Your task to perform on an android device: Open Wikipedia Image 0: 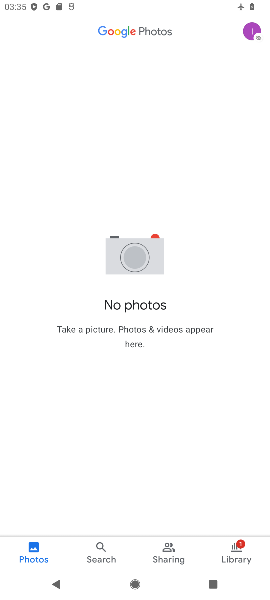
Step 0: press home button
Your task to perform on an android device: Open Wikipedia Image 1: 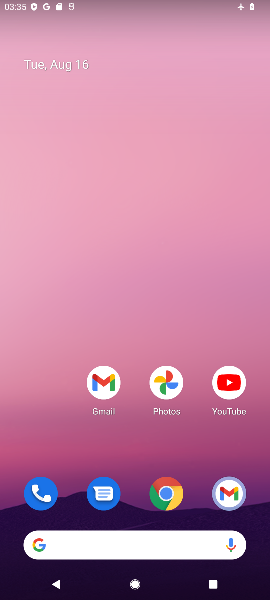
Step 1: drag from (64, 476) to (67, 120)
Your task to perform on an android device: Open Wikipedia Image 2: 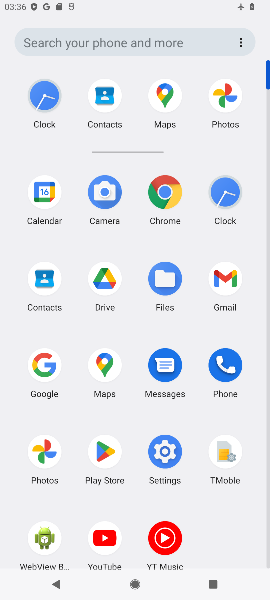
Step 2: click (163, 190)
Your task to perform on an android device: Open Wikipedia Image 3: 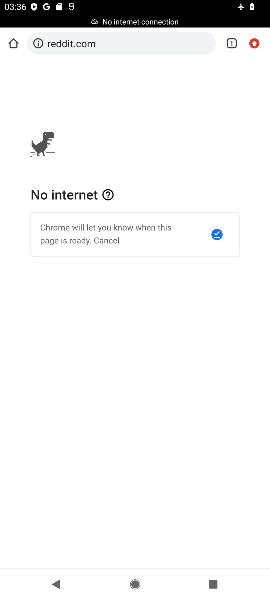
Step 3: click (114, 44)
Your task to perform on an android device: Open Wikipedia Image 4: 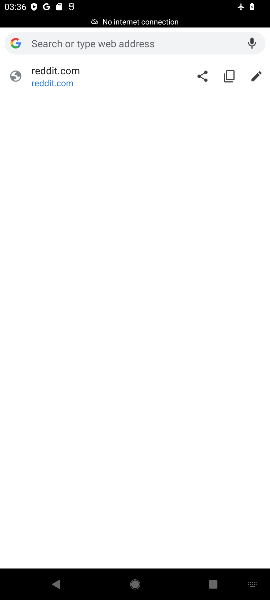
Step 4: type "wikipedia"
Your task to perform on an android device: Open Wikipedia Image 5: 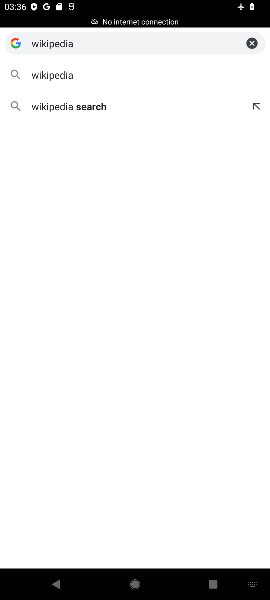
Step 5: click (109, 72)
Your task to perform on an android device: Open Wikipedia Image 6: 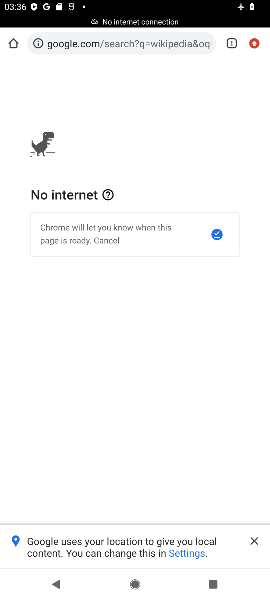
Step 6: task complete